Your task to perform on an android device: change alarm snooze length Image 0: 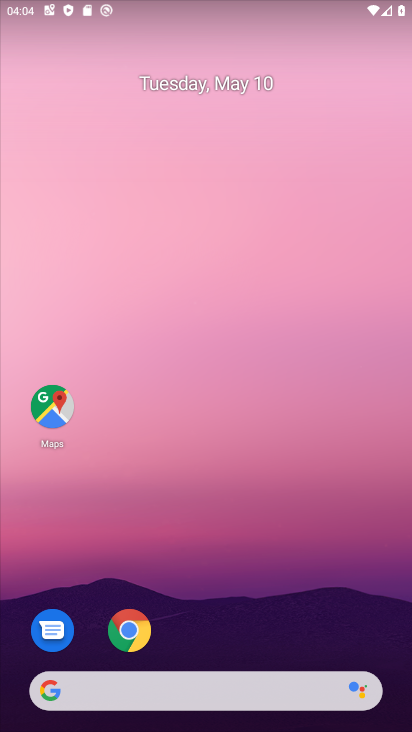
Step 0: drag from (233, 638) to (261, 135)
Your task to perform on an android device: change alarm snooze length Image 1: 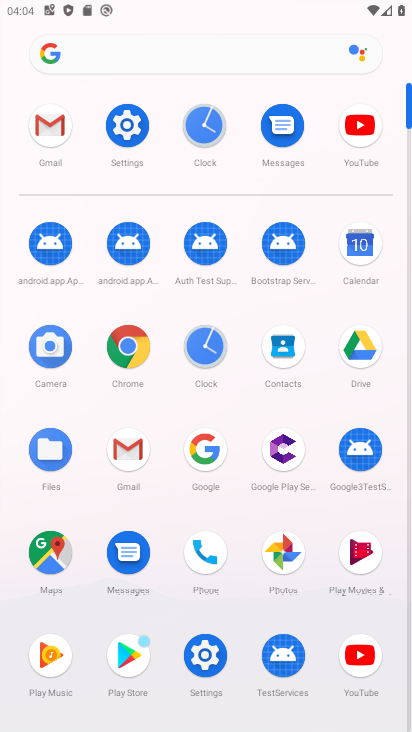
Step 1: click (199, 124)
Your task to perform on an android device: change alarm snooze length Image 2: 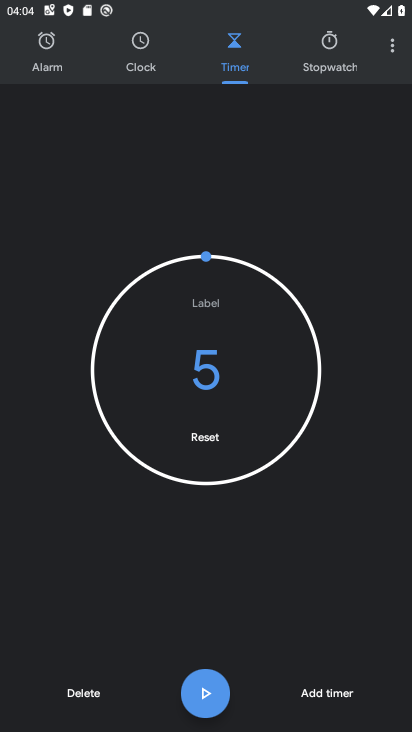
Step 2: click (385, 52)
Your task to perform on an android device: change alarm snooze length Image 3: 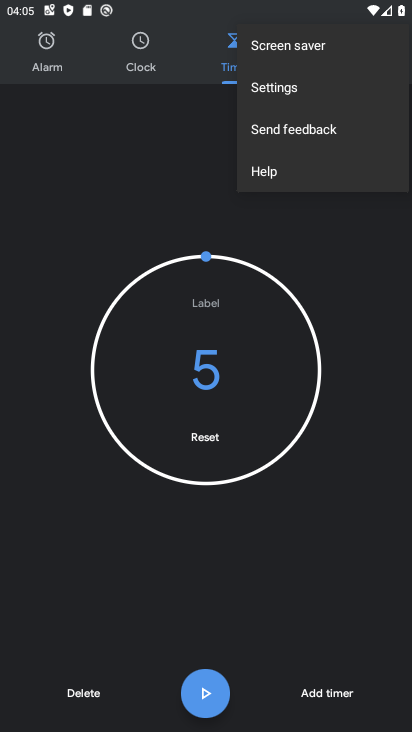
Step 3: click (276, 92)
Your task to perform on an android device: change alarm snooze length Image 4: 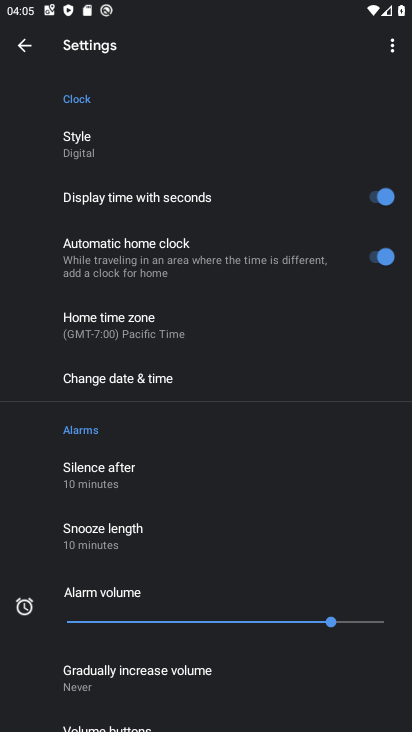
Step 4: click (276, 92)
Your task to perform on an android device: change alarm snooze length Image 5: 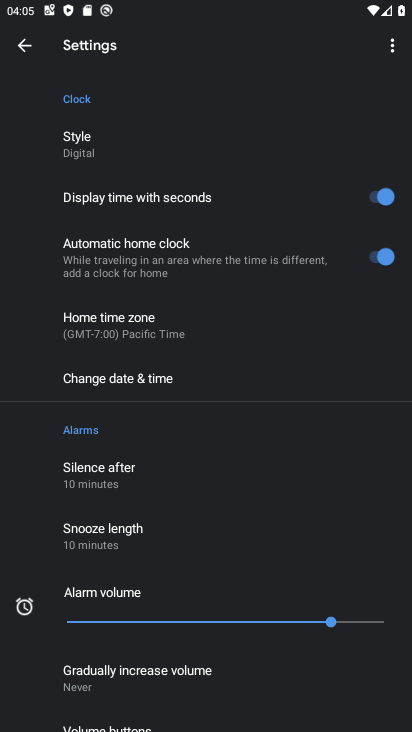
Step 5: click (184, 555)
Your task to perform on an android device: change alarm snooze length Image 6: 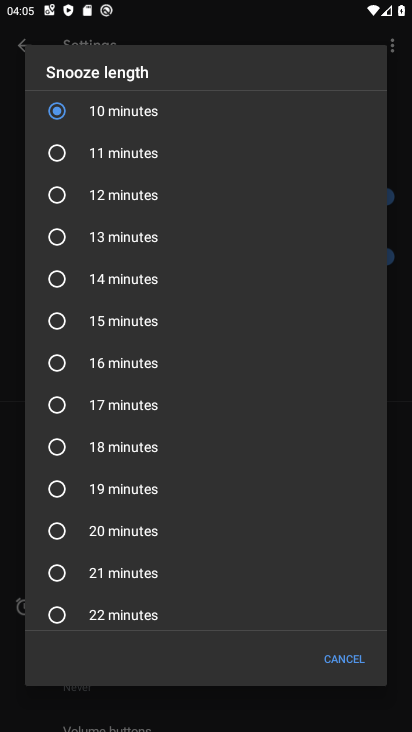
Step 6: click (146, 582)
Your task to perform on an android device: change alarm snooze length Image 7: 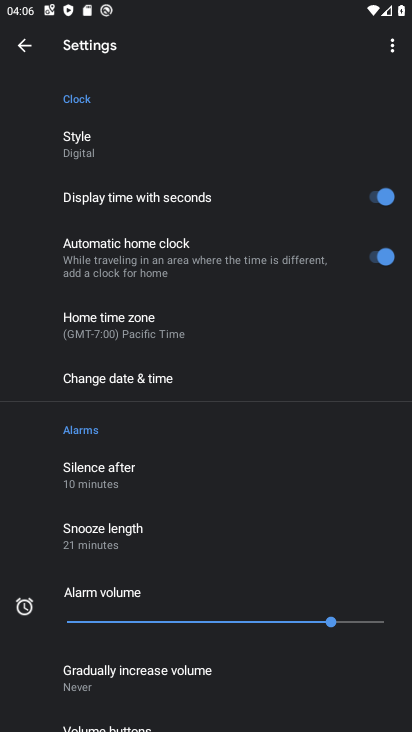
Step 7: task complete